Your task to perform on an android device: turn on sleep mode Image 0: 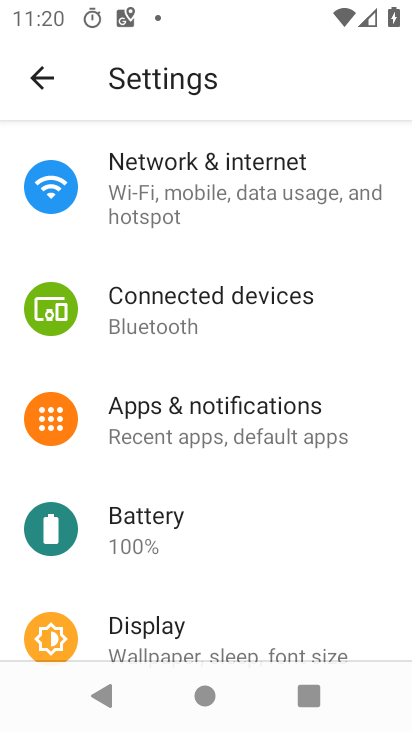
Step 0: drag from (356, 607) to (376, 323)
Your task to perform on an android device: turn on sleep mode Image 1: 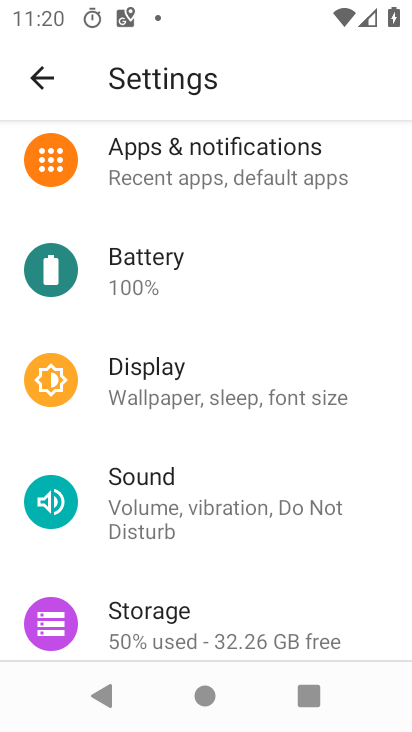
Step 1: click (184, 383)
Your task to perform on an android device: turn on sleep mode Image 2: 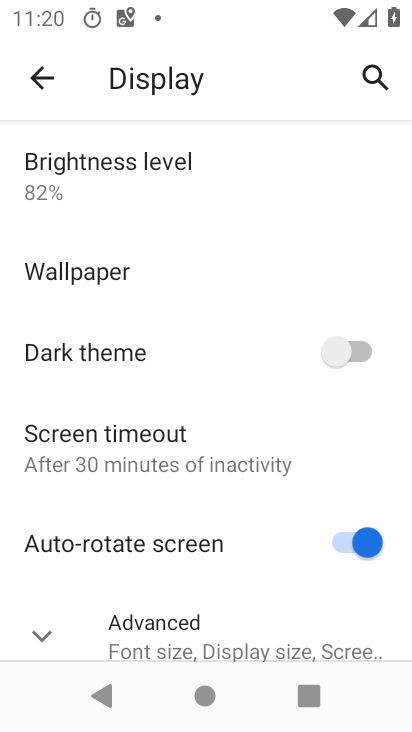
Step 2: drag from (268, 570) to (281, 235)
Your task to perform on an android device: turn on sleep mode Image 3: 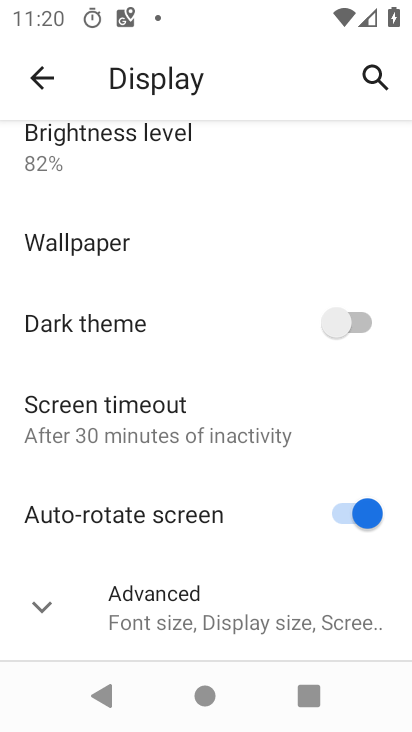
Step 3: click (156, 421)
Your task to perform on an android device: turn on sleep mode Image 4: 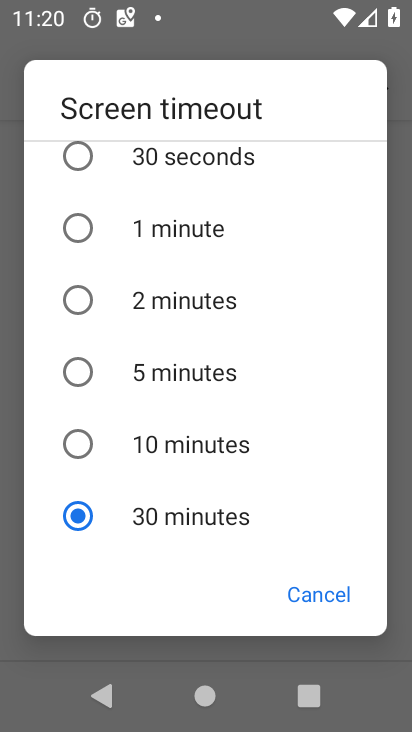
Step 4: task complete